Your task to perform on an android device: Go to display settings Image 0: 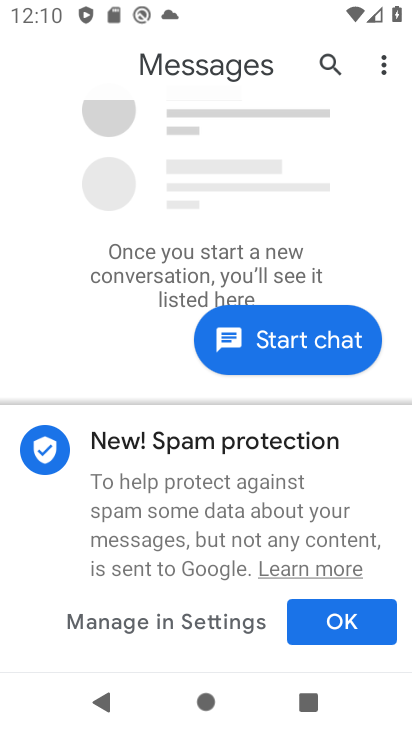
Step 0: press home button
Your task to perform on an android device: Go to display settings Image 1: 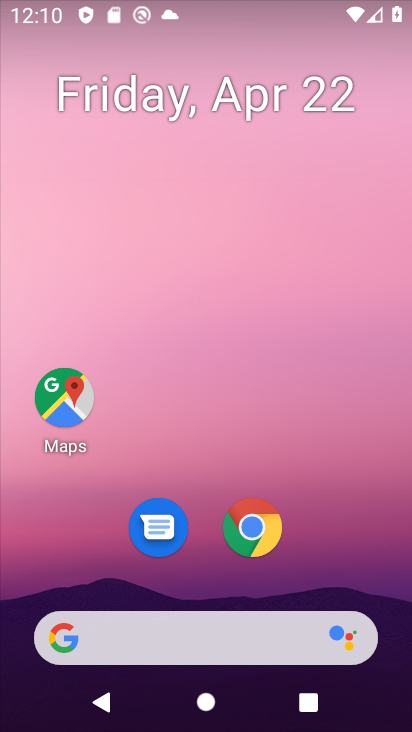
Step 1: drag from (207, 581) to (221, 101)
Your task to perform on an android device: Go to display settings Image 2: 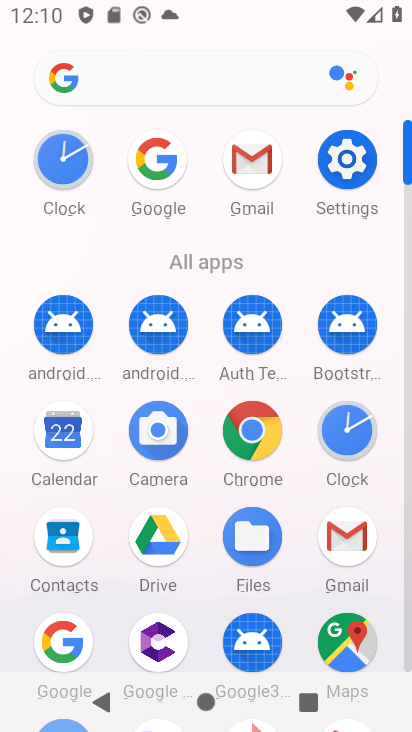
Step 2: click (343, 165)
Your task to perform on an android device: Go to display settings Image 3: 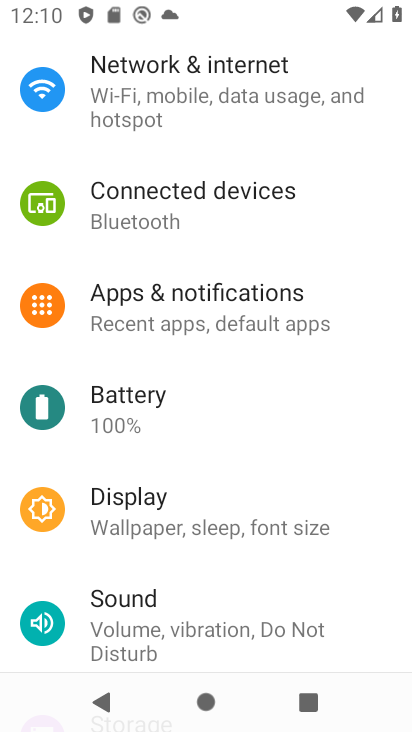
Step 3: click (149, 496)
Your task to perform on an android device: Go to display settings Image 4: 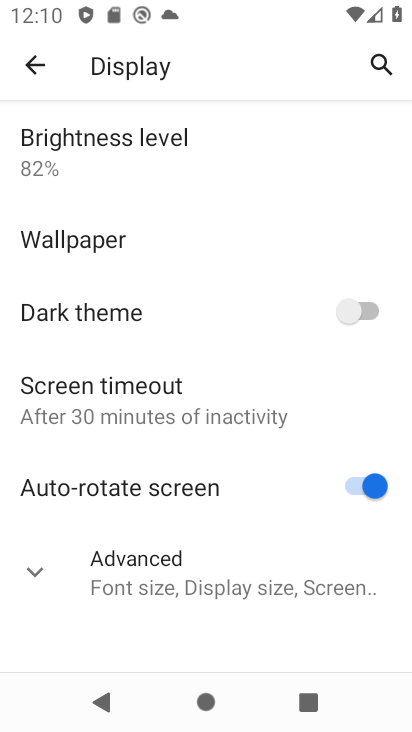
Step 4: task complete